Your task to perform on an android device: turn on translation in the chrome app Image 0: 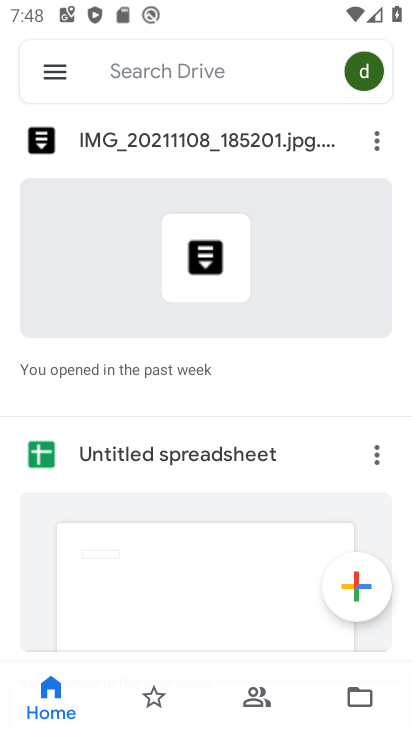
Step 0: press back button
Your task to perform on an android device: turn on translation in the chrome app Image 1: 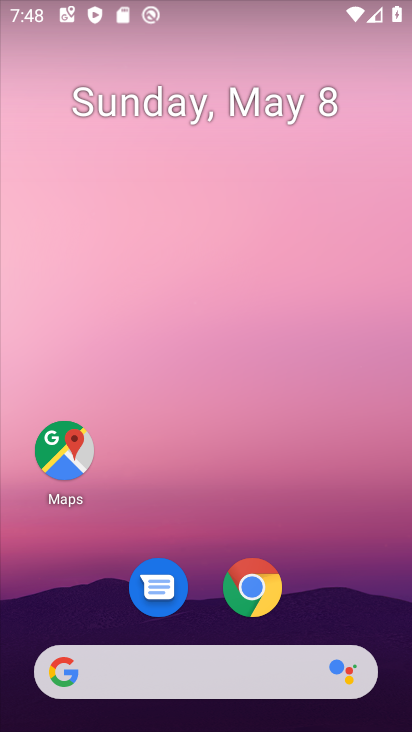
Step 1: click (250, 586)
Your task to perform on an android device: turn on translation in the chrome app Image 2: 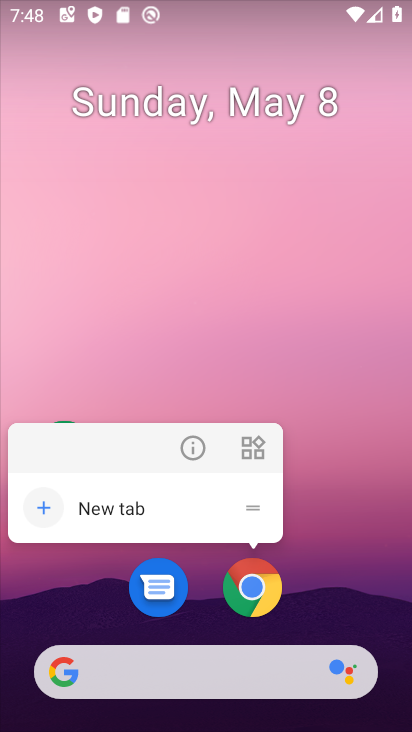
Step 2: click (250, 586)
Your task to perform on an android device: turn on translation in the chrome app Image 3: 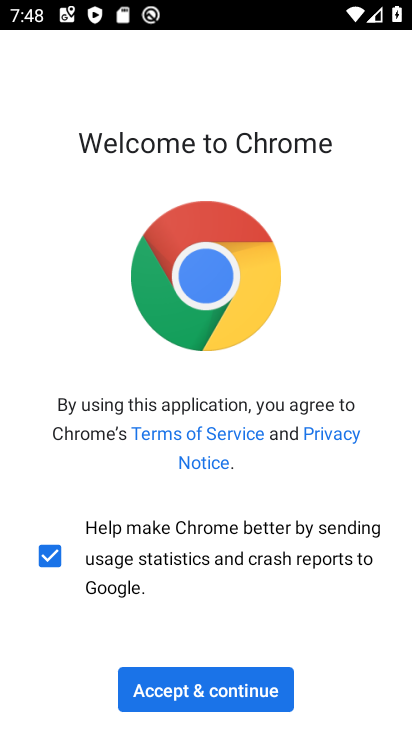
Step 3: click (205, 688)
Your task to perform on an android device: turn on translation in the chrome app Image 4: 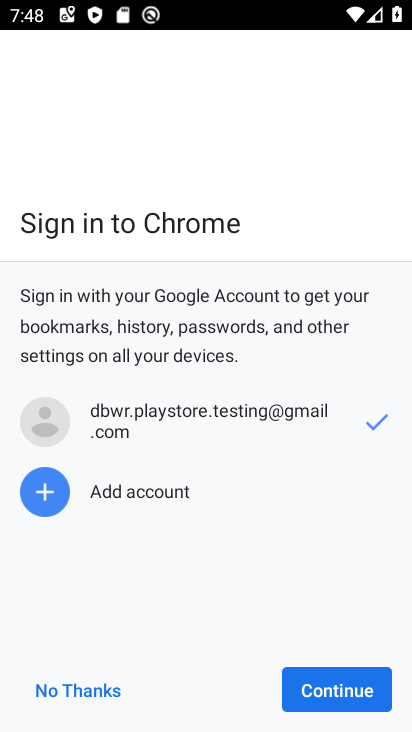
Step 4: click (323, 691)
Your task to perform on an android device: turn on translation in the chrome app Image 5: 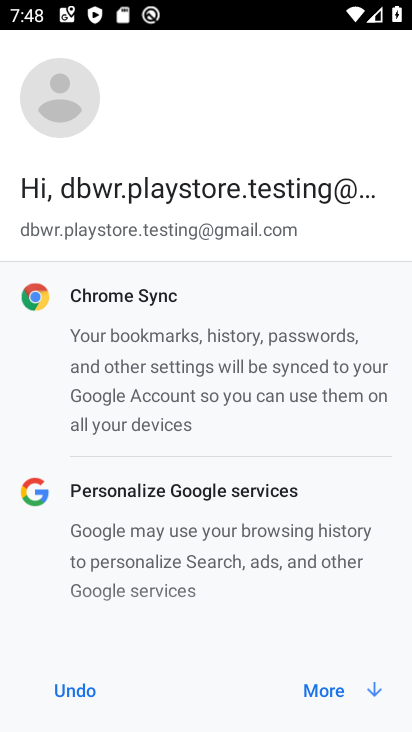
Step 5: click (323, 691)
Your task to perform on an android device: turn on translation in the chrome app Image 6: 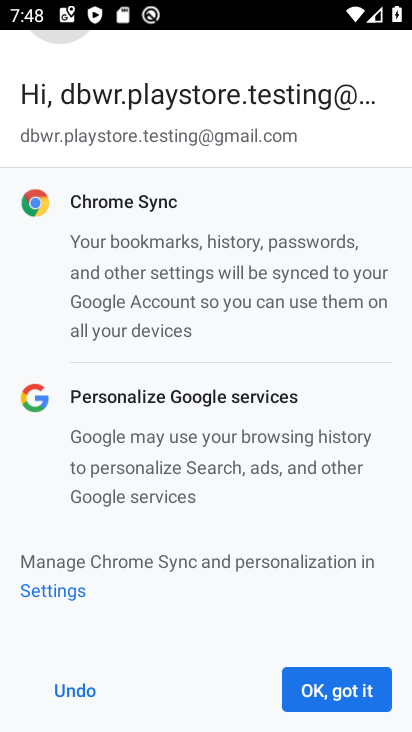
Step 6: click (323, 691)
Your task to perform on an android device: turn on translation in the chrome app Image 7: 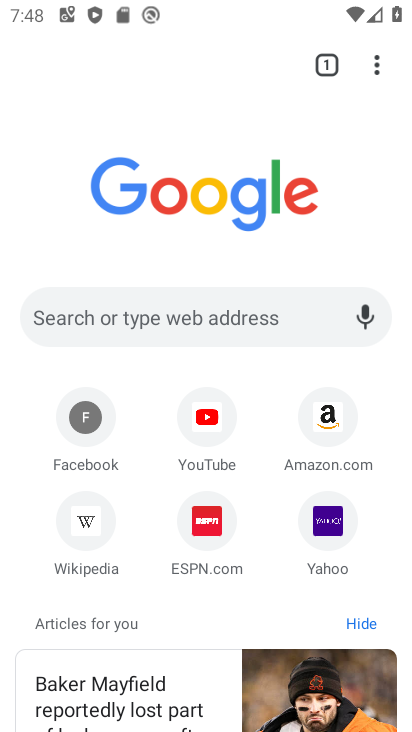
Step 7: click (382, 60)
Your task to perform on an android device: turn on translation in the chrome app Image 8: 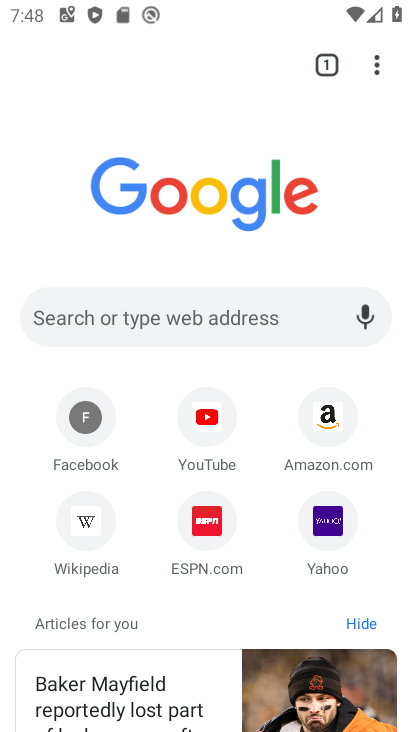
Step 8: click (381, 67)
Your task to perform on an android device: turn on translation in the chrome app Image 9: 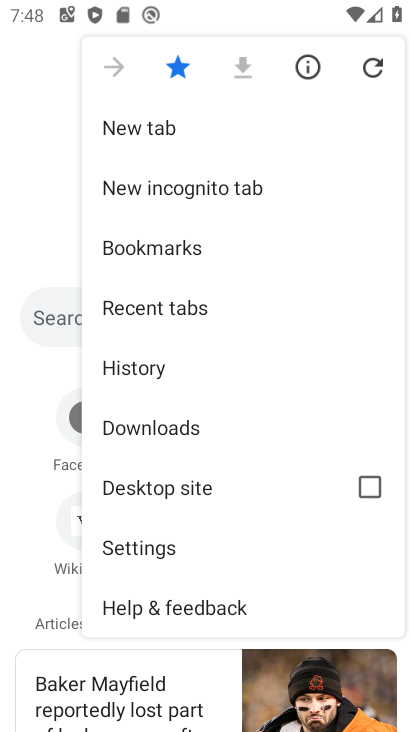
Step 9: click (155, 549)
Your task to perform on an android device: turn on translation in the chrome app Image 10: 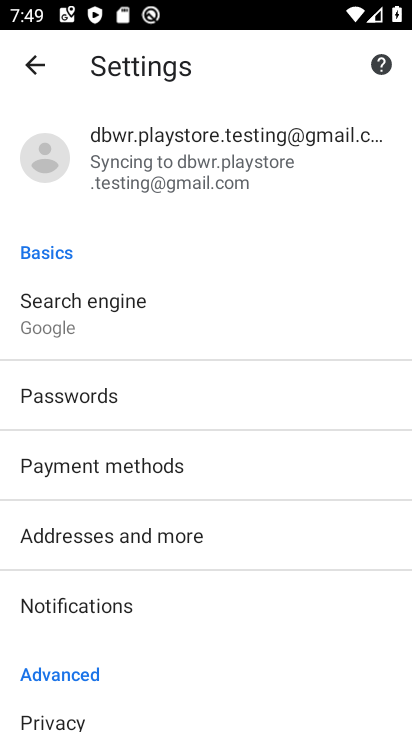
Step 10: drag from (190, 615) to (248, 475)
Your task to perform on an android device: turn on translation in the chrome app Image 11: 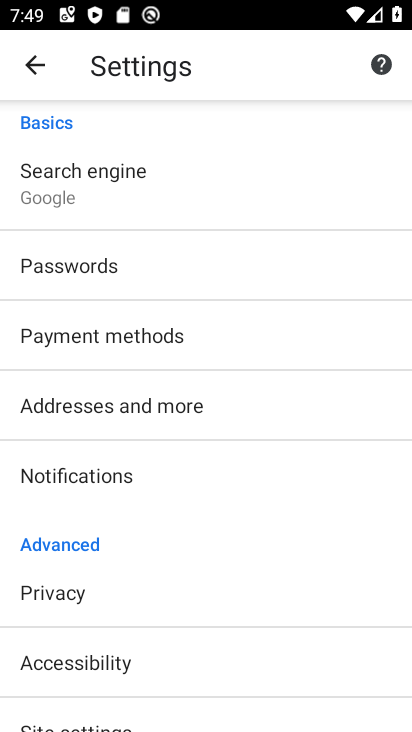
Step 11: drag from (193, 569) to (240, 471)
Your task to perform on an android device: turn on translation in the chrome app Image 12: 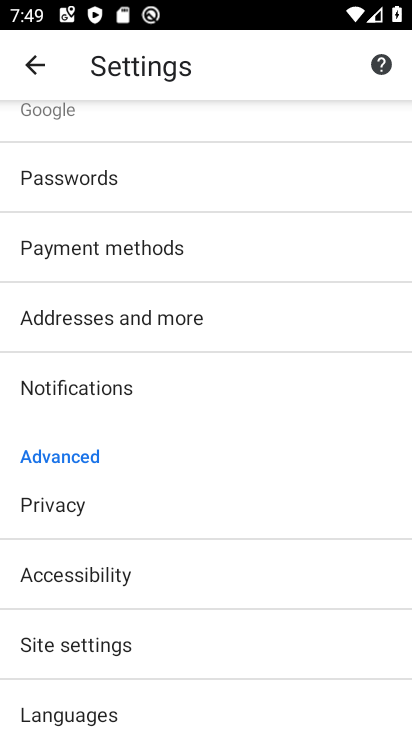
Step 12: drag from (192, 565) to (254, 478)
Your task to perform on an android device: turn on translation in the chrome app Image 13: 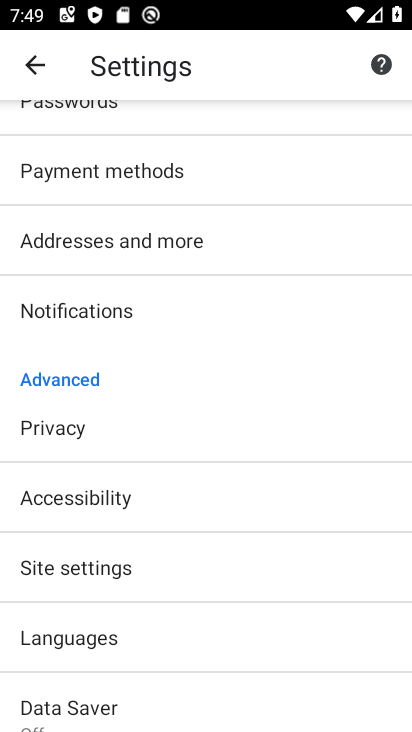
Step 13: click (90, 638)
Your task to perform on an android device: turn on translation in the chrome app Image 14: 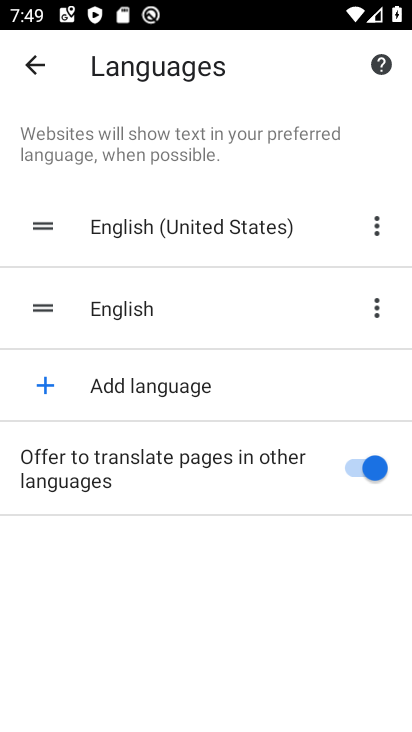
Step 14: task complete